Your task to perform on an android device: Add alienware area 51 to the cart on ebay.com Image 0: 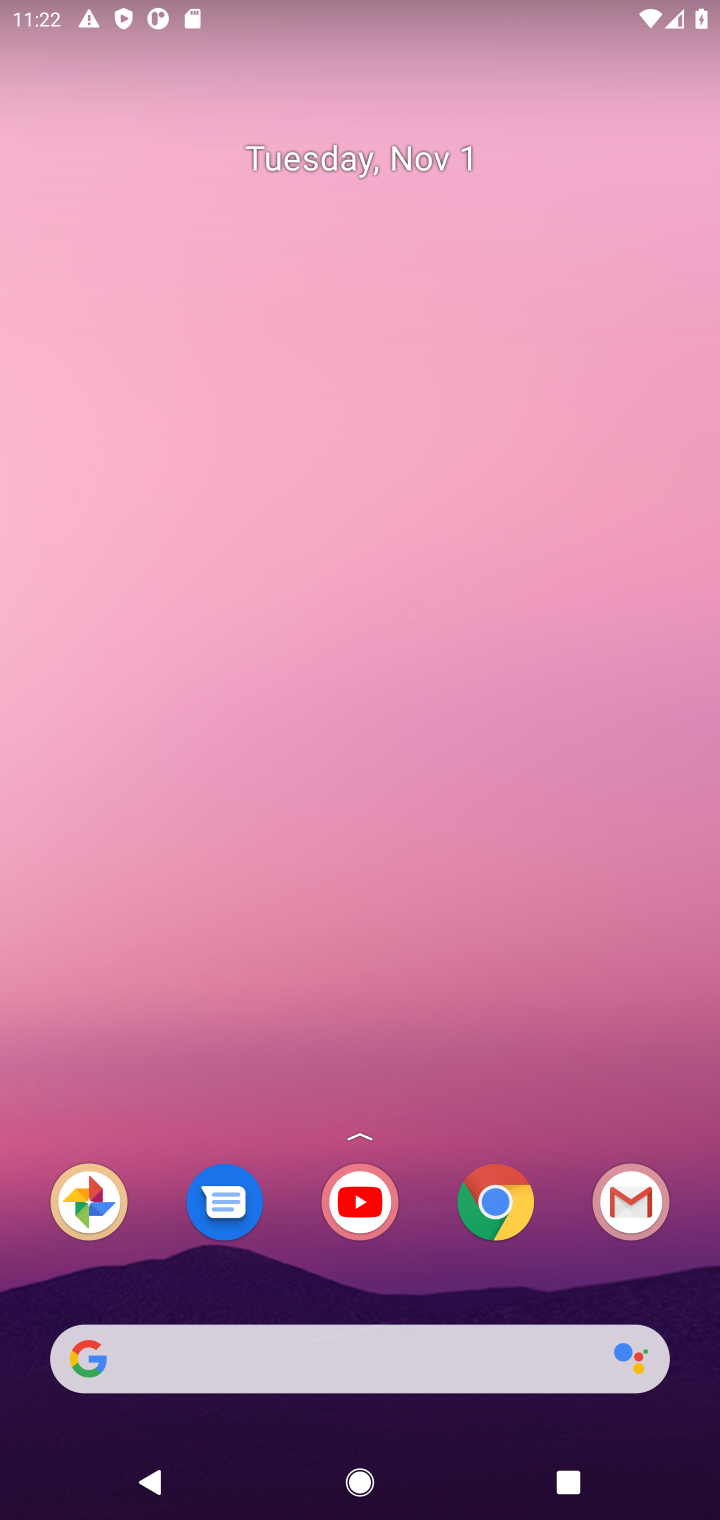
Step 0: click (523, 1212)
Your task to perform on an android device: Add alienware area 51 to the cart on ebay.com Image 1: 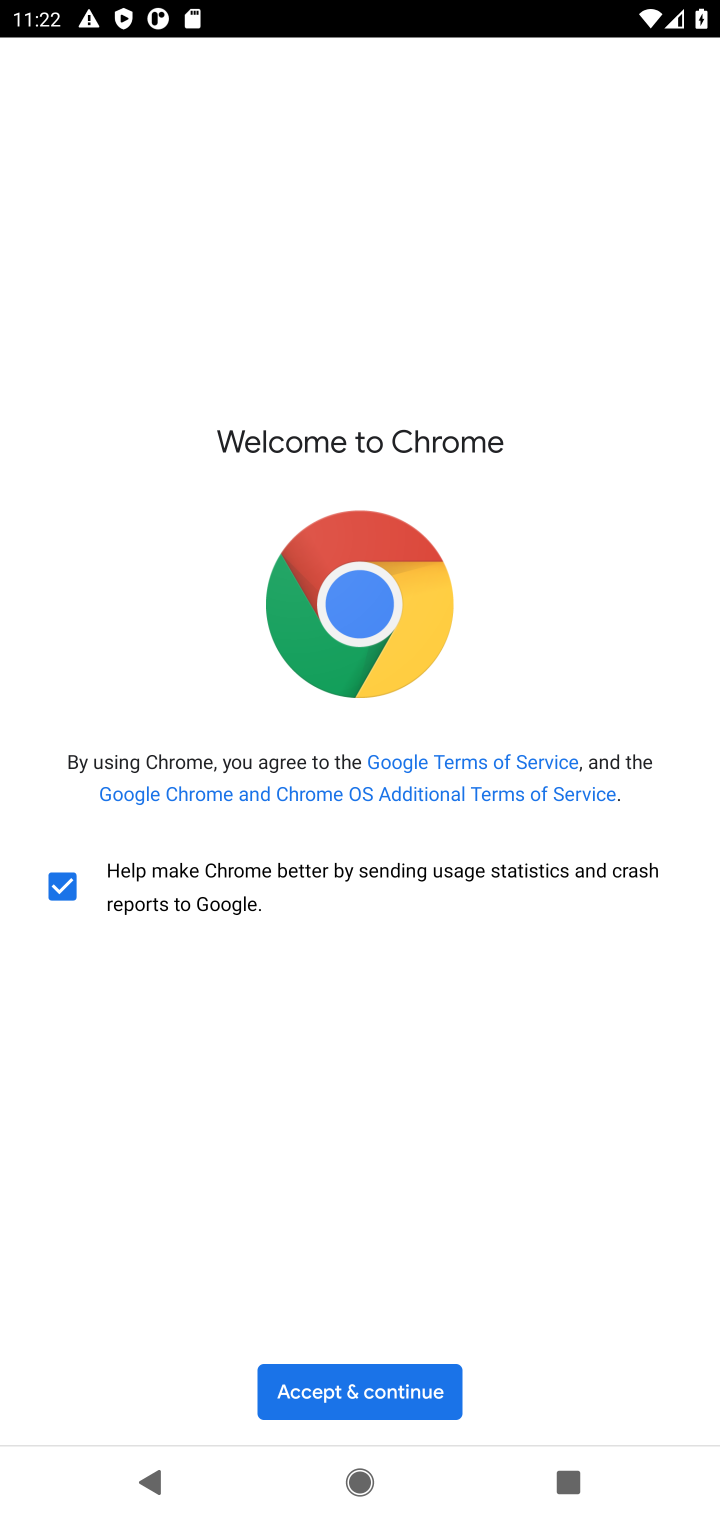
Step 1: click (326, 1453)
Your task to perform on an android device: Add alienware area 51 to the cart on ebay.com Image 2: 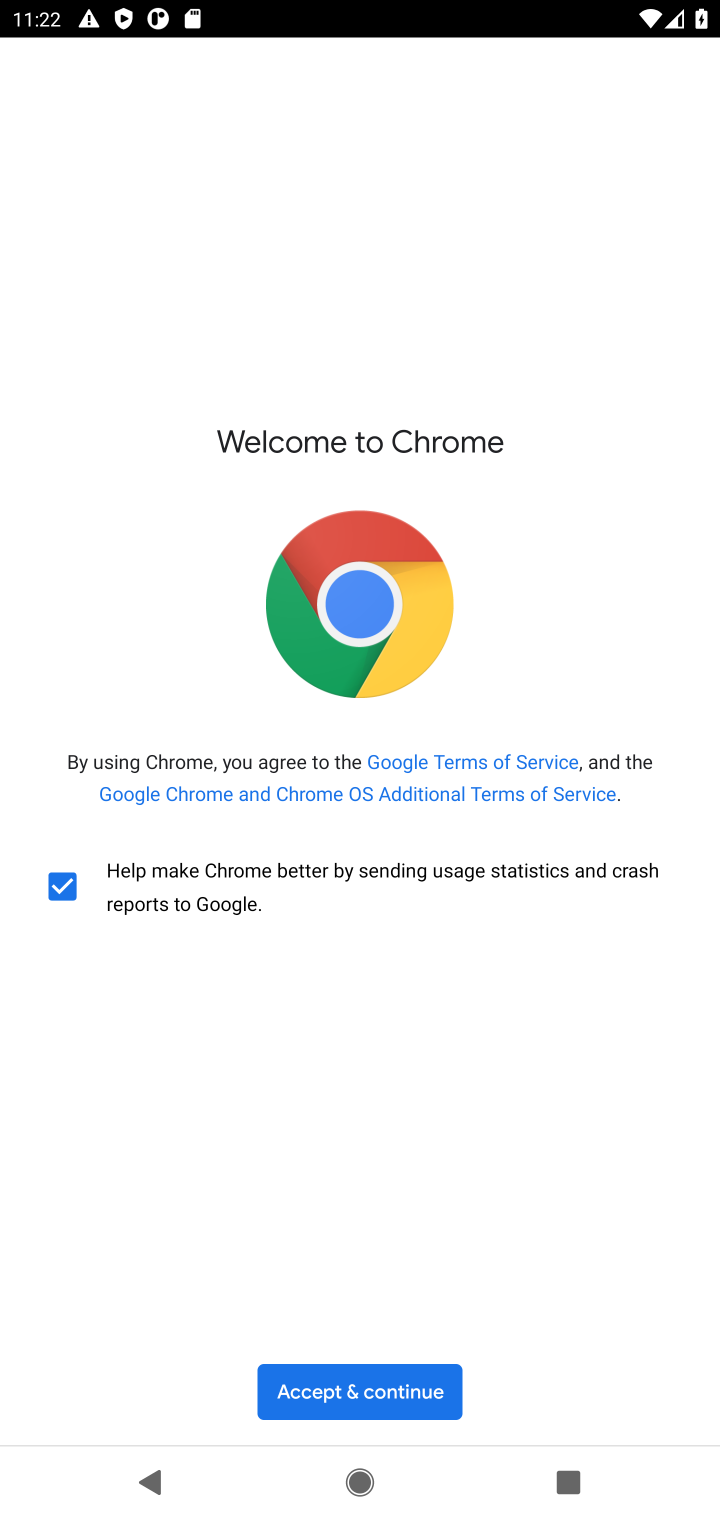
Step 2: click (324, 1401)
Your task to perform on an android device: Add alienware area 51 to the cart on ebay.com Image 3: 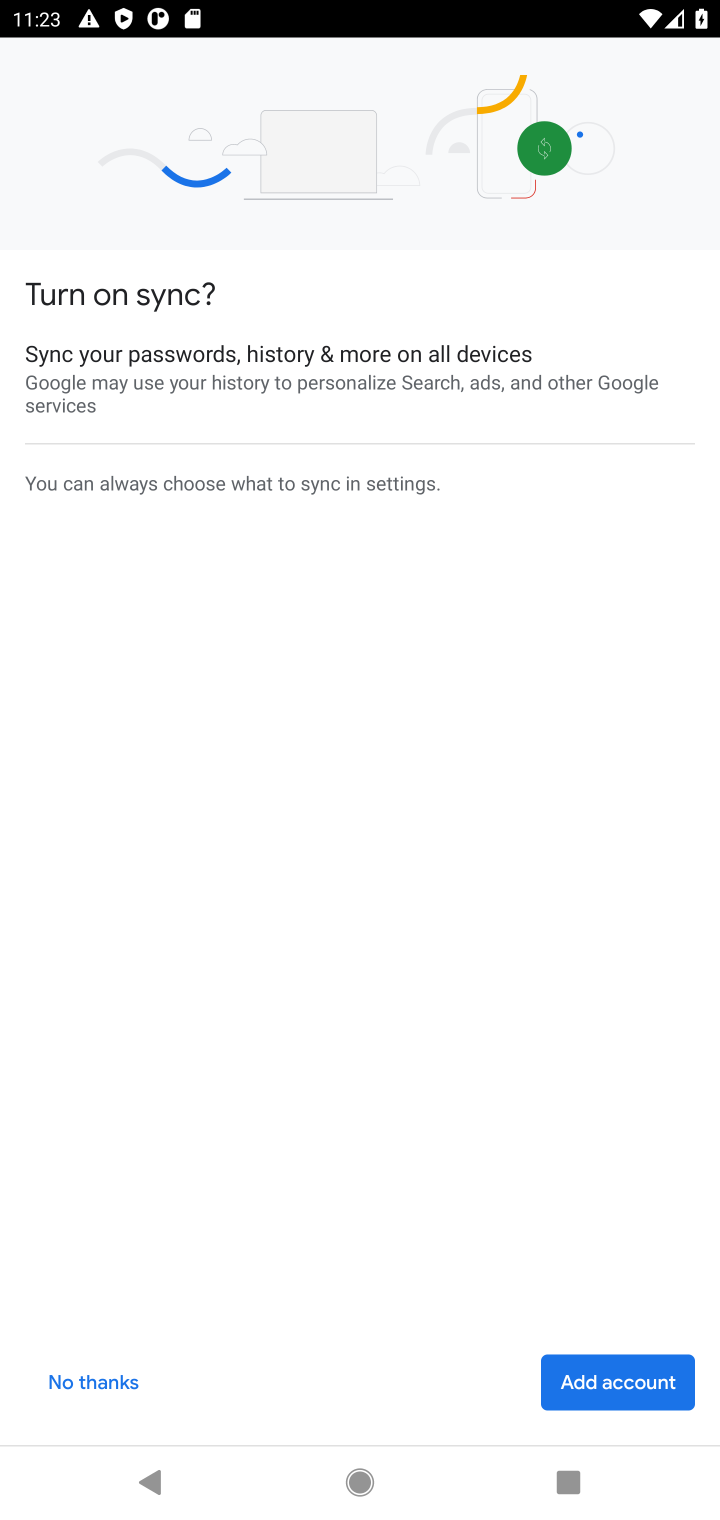
Step 3: click (90, 1397)
Your task to perform on an android device: Add alienware area 51 to the cart on ebay.com Image 4: 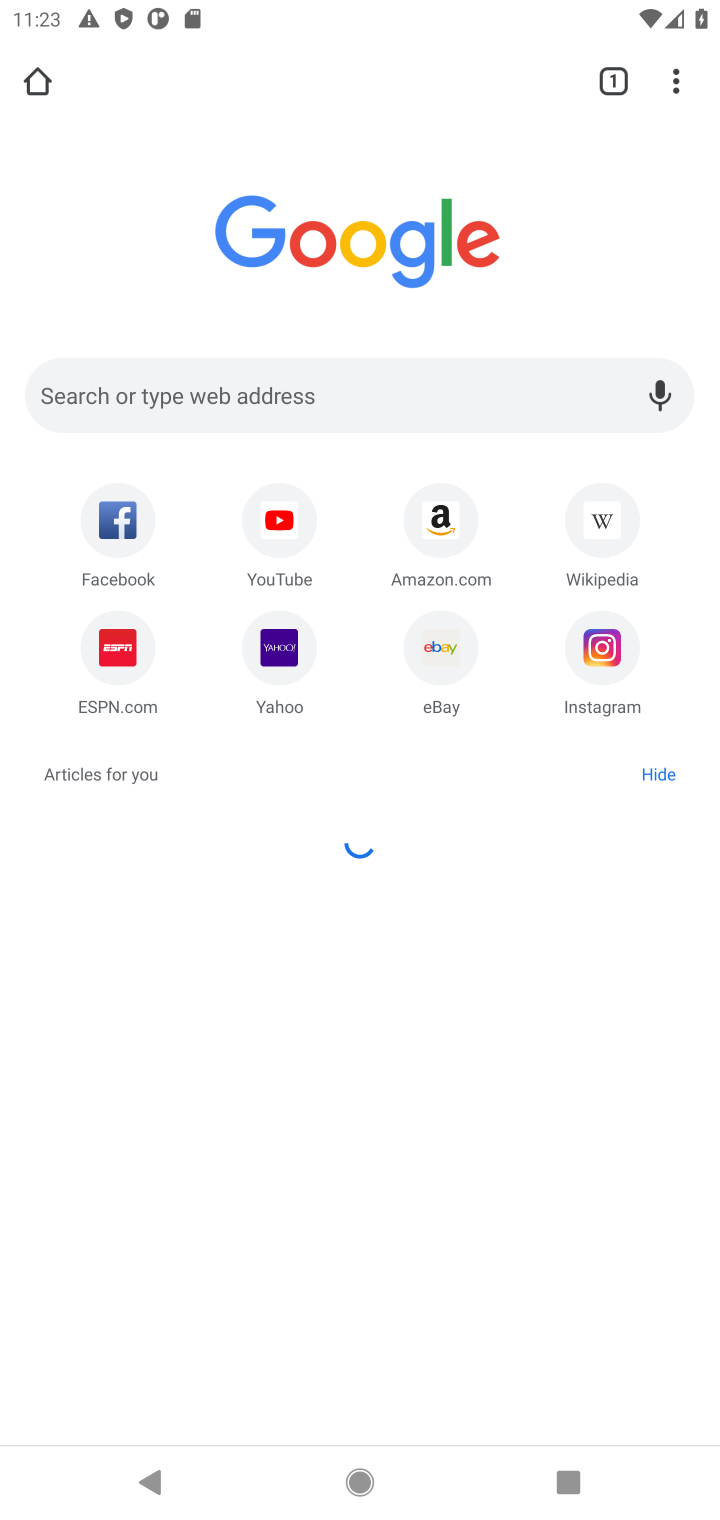
Step 4: click (311, 398)
Your task to perform on an android device: Add alienware area 51 to the cart on ebay.com Image 5: 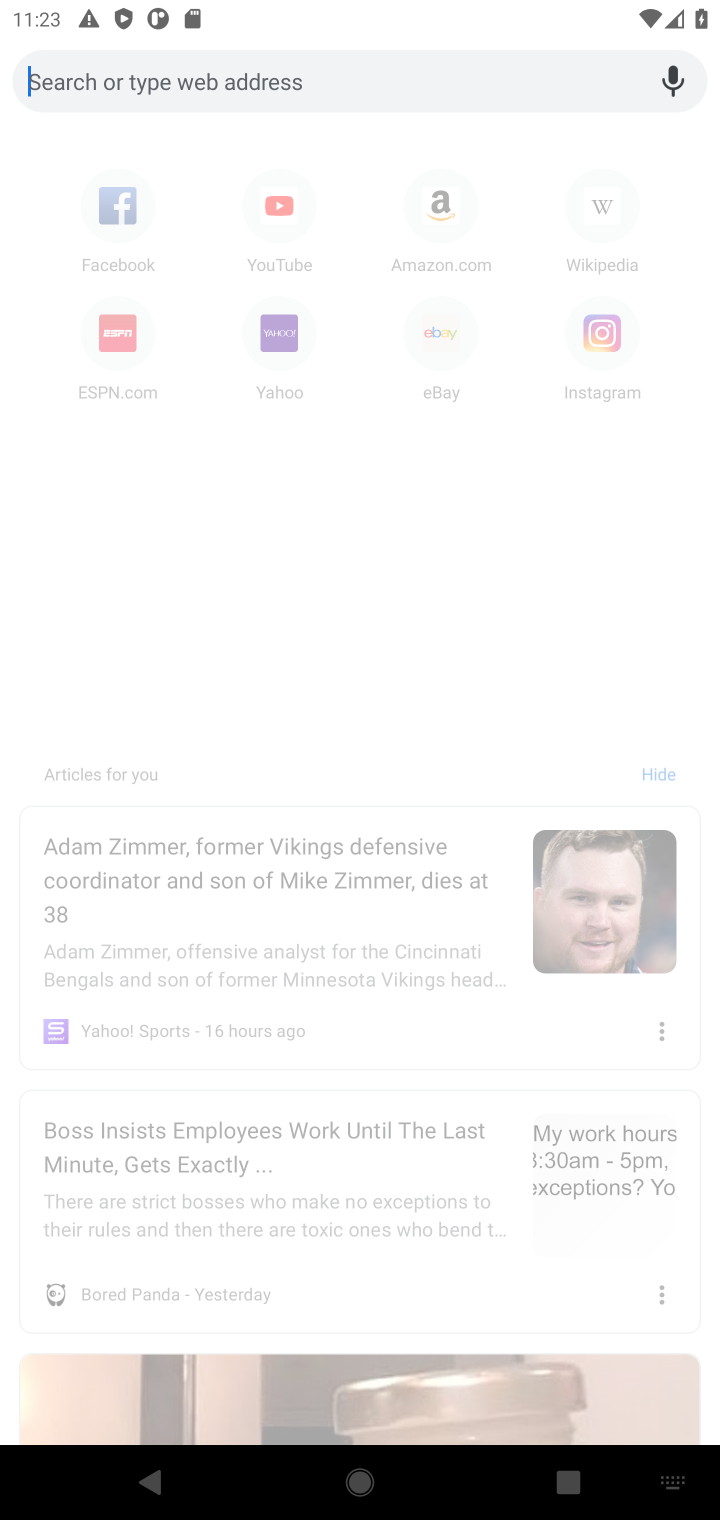
Step 5: type "ebay.com"
Your task to perform on an android device: Add alienware area 51 to the cart on ebay.com Image 6: 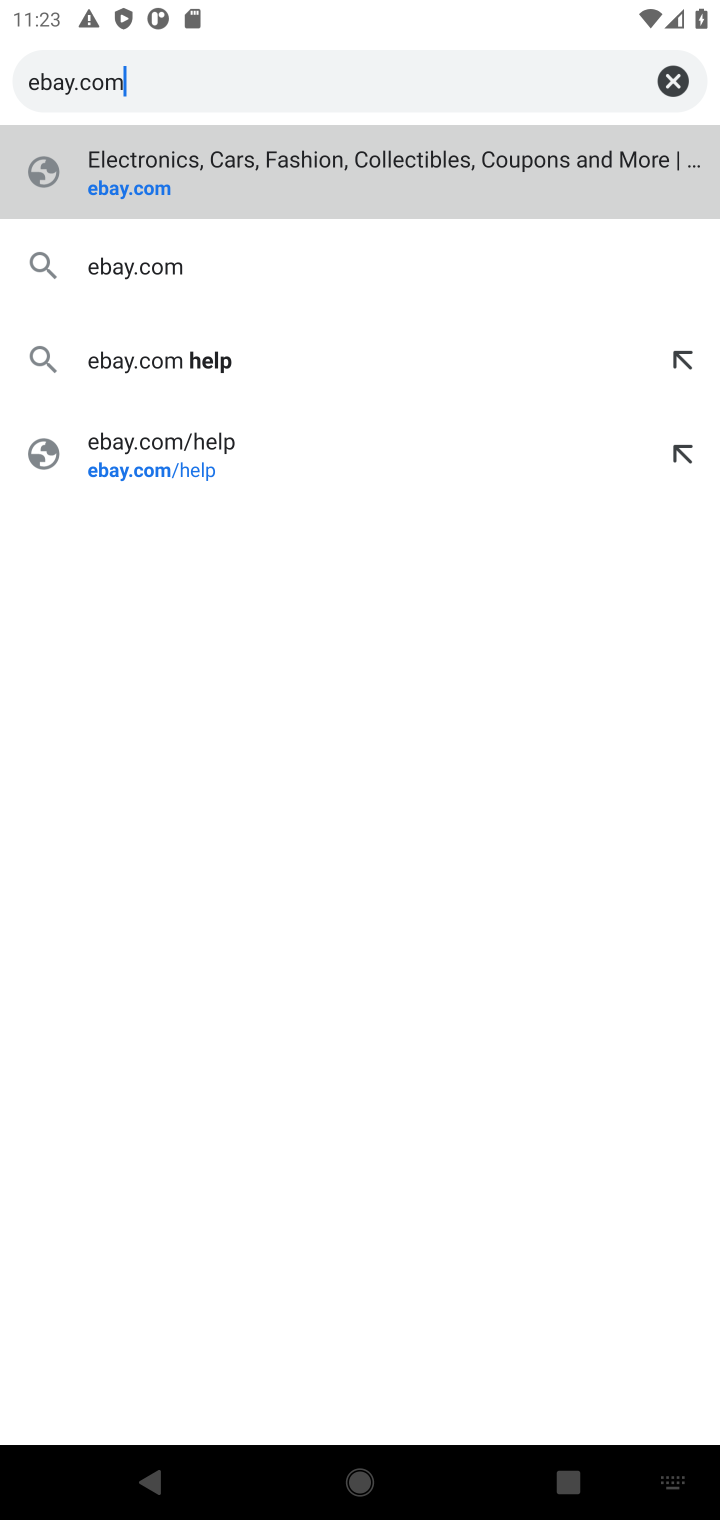
Step 6: press enter
Your task to perform on an android device: Add alienware area 51 to the cart on ebay.com Image 7: 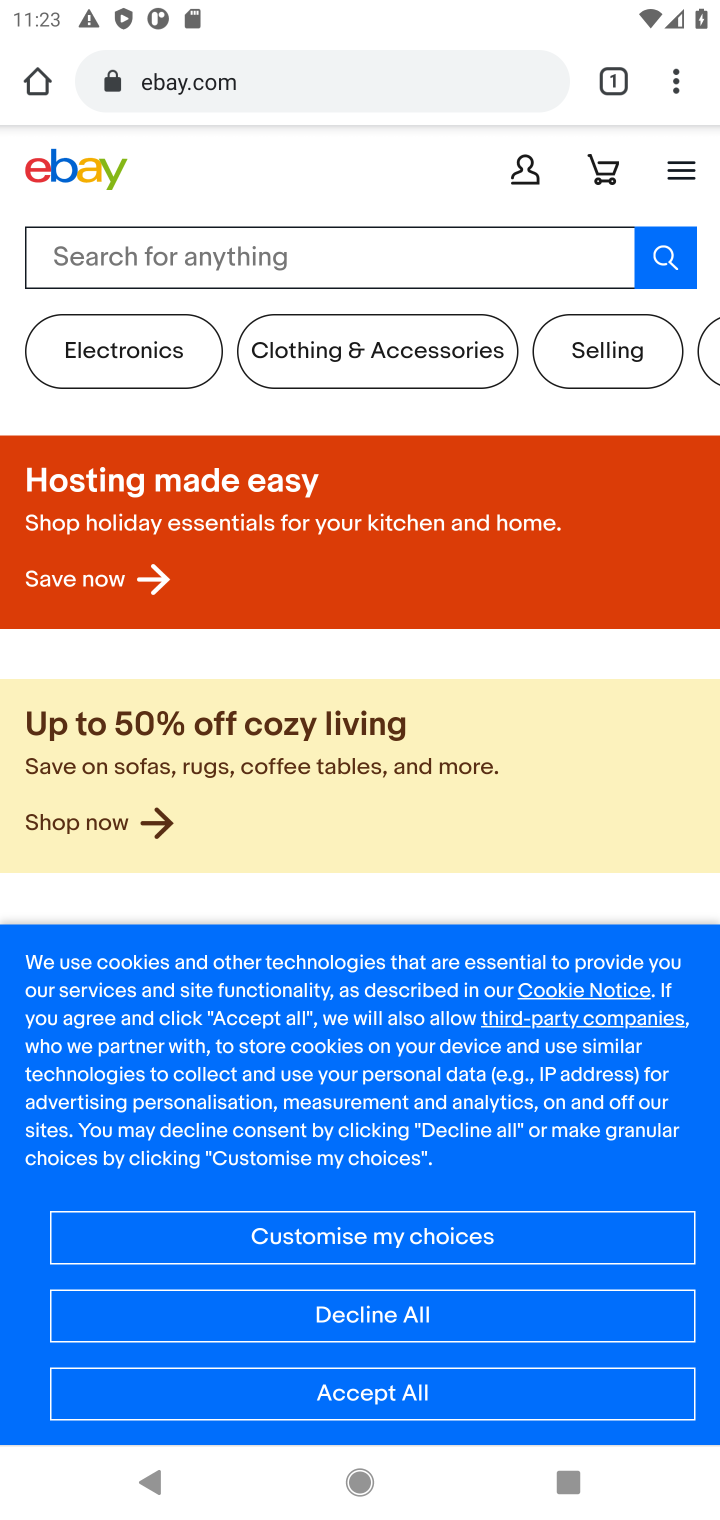
Step 7: click (374, 254)
Your task to perform on an android device: Add alienware area 51 to the cart on ebay.com Image 8: 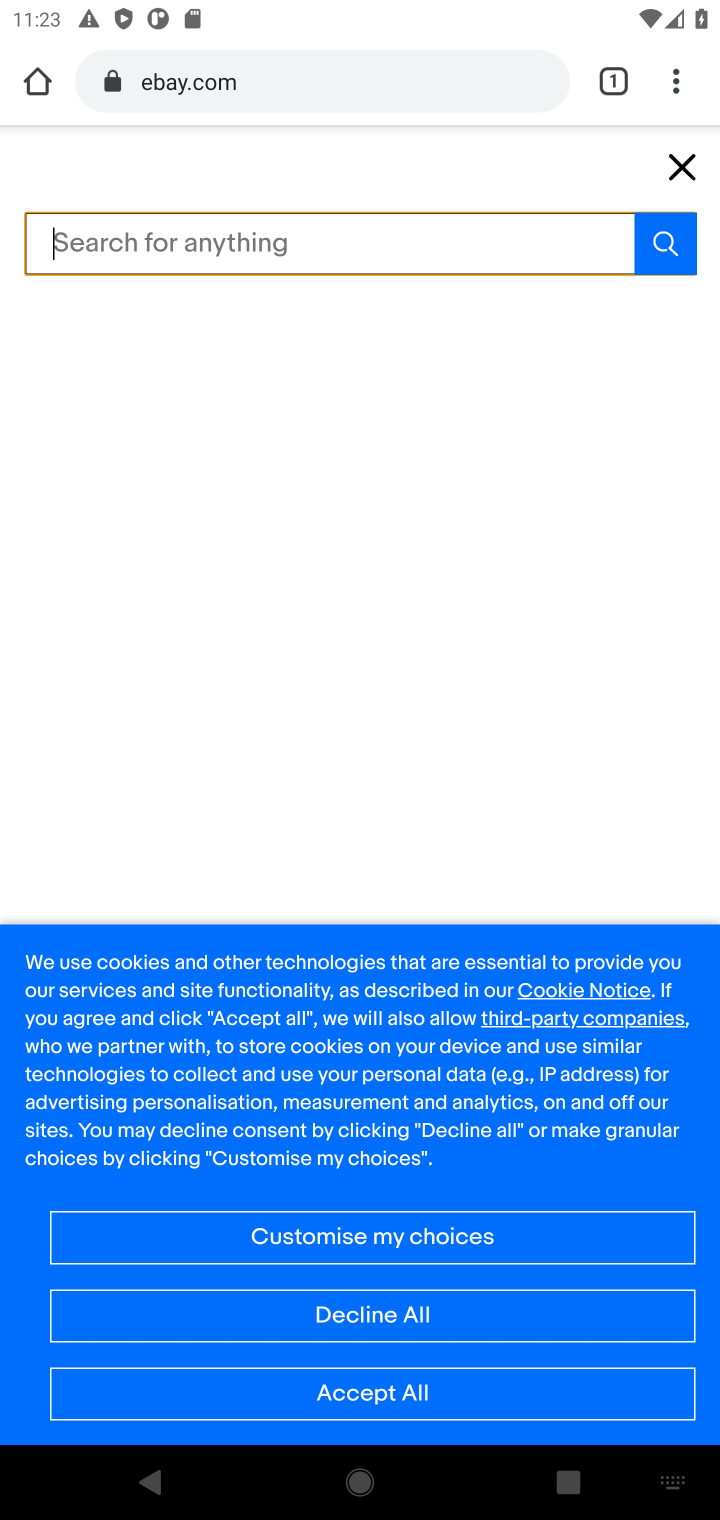
Step 8: type "alienware area 51"
Your task to perform on an android device: Add alienware area 51 to the cart on ebay.com Image 9: 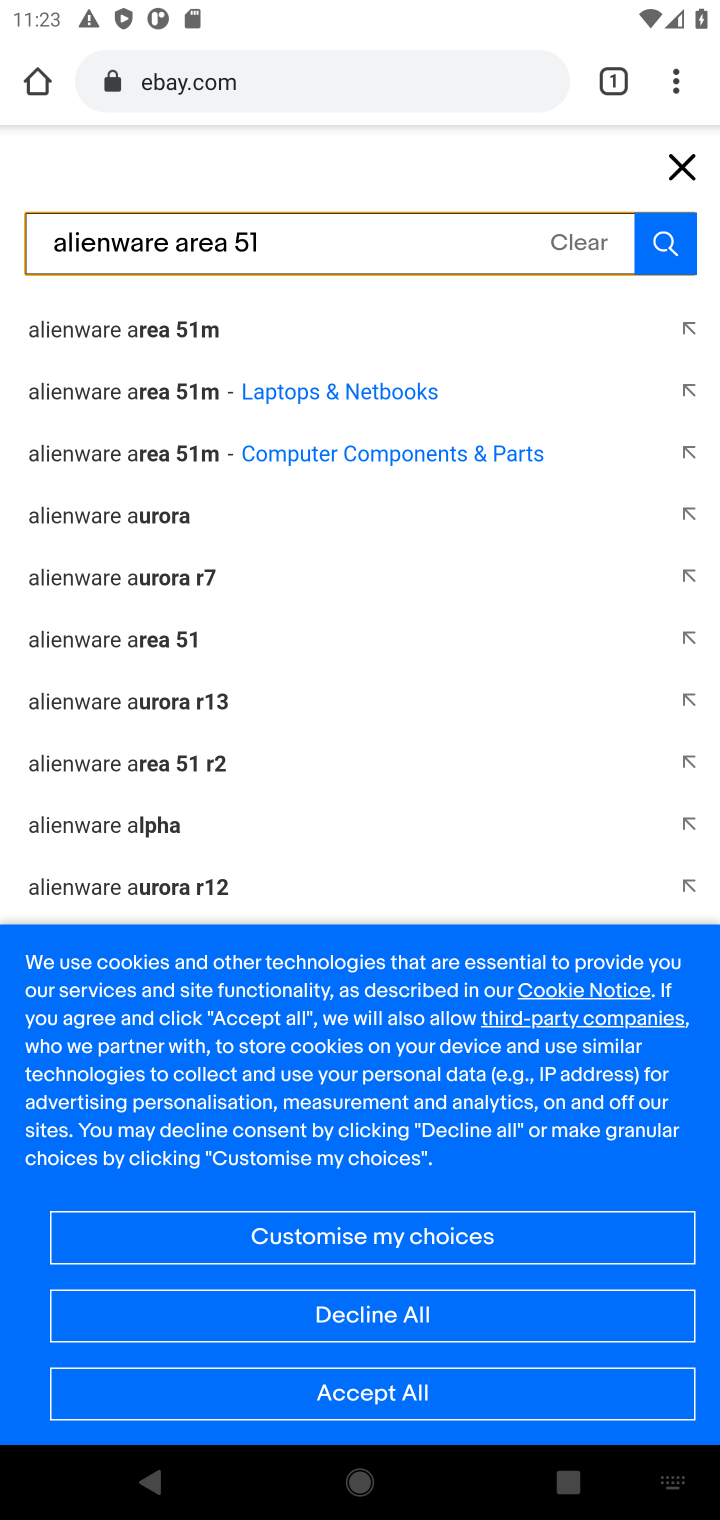
Step 9: click (663, 240)
Your task to perform on an android device: Add alienware area 51 to the cart on ebay.com Image 10: 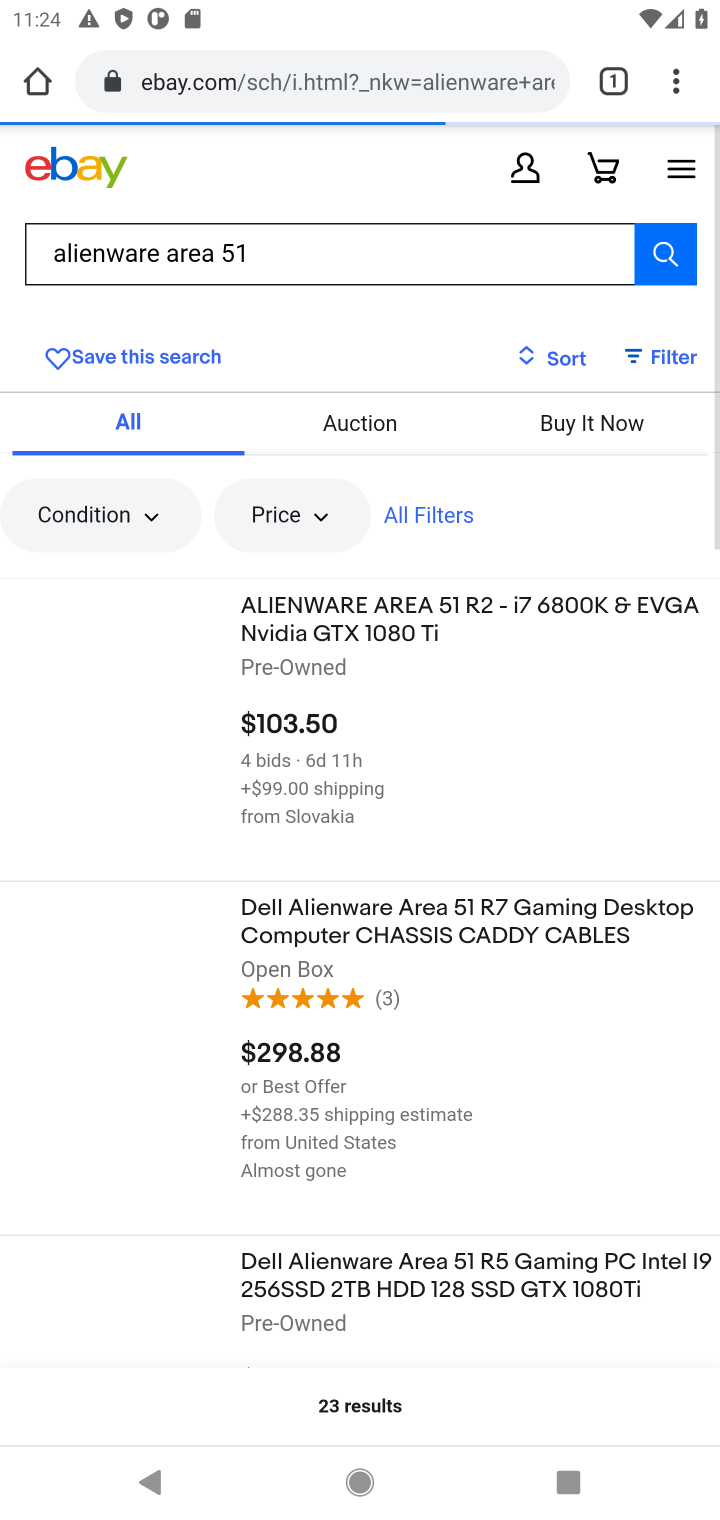
Step 10: drag from (407, 1408) to (424, 1148)
Your task to perform on an android device: Add alienware area 51 to the cart on ebay.com Image 11: 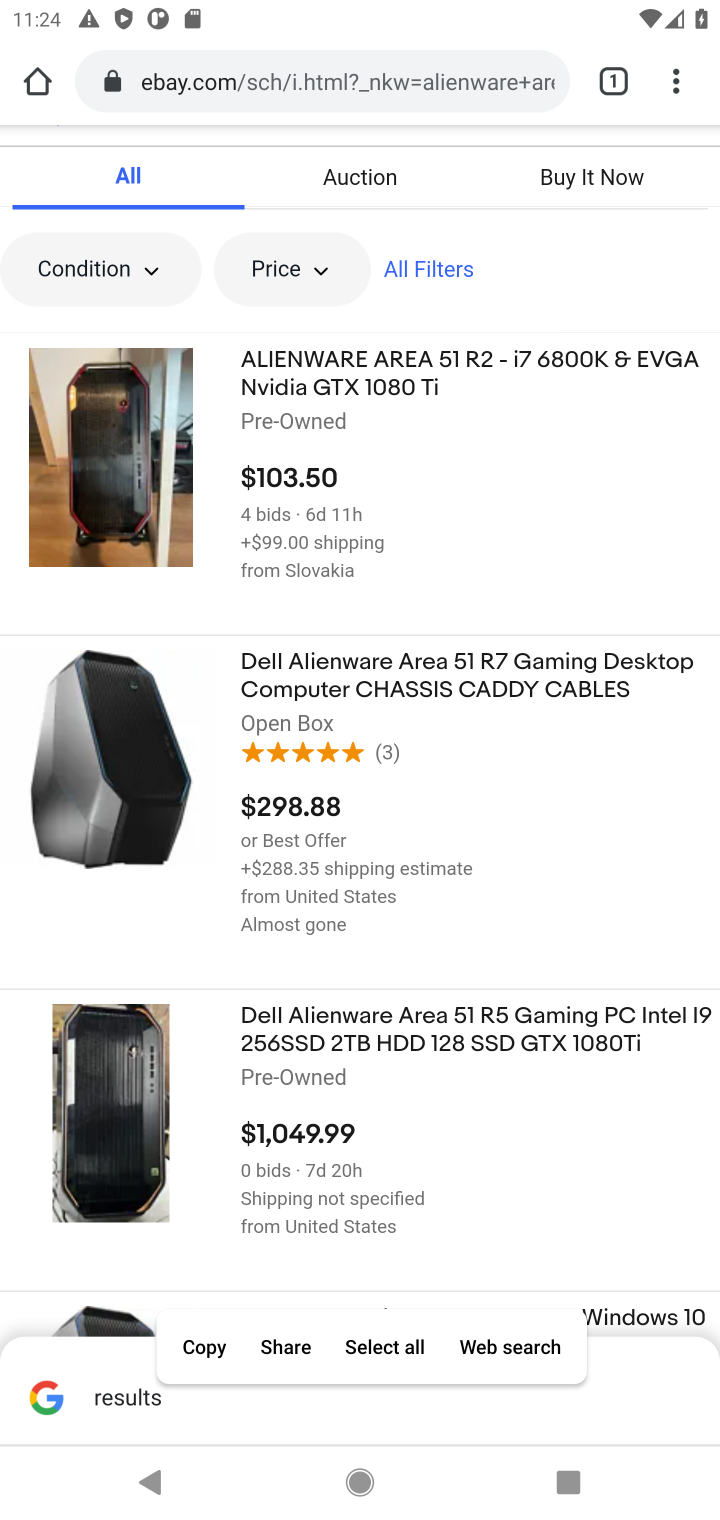
Step 11: click (329, 378)
Your task to perform on an android device: Add alienware area 51 to the cart on ebay.com Image 12: 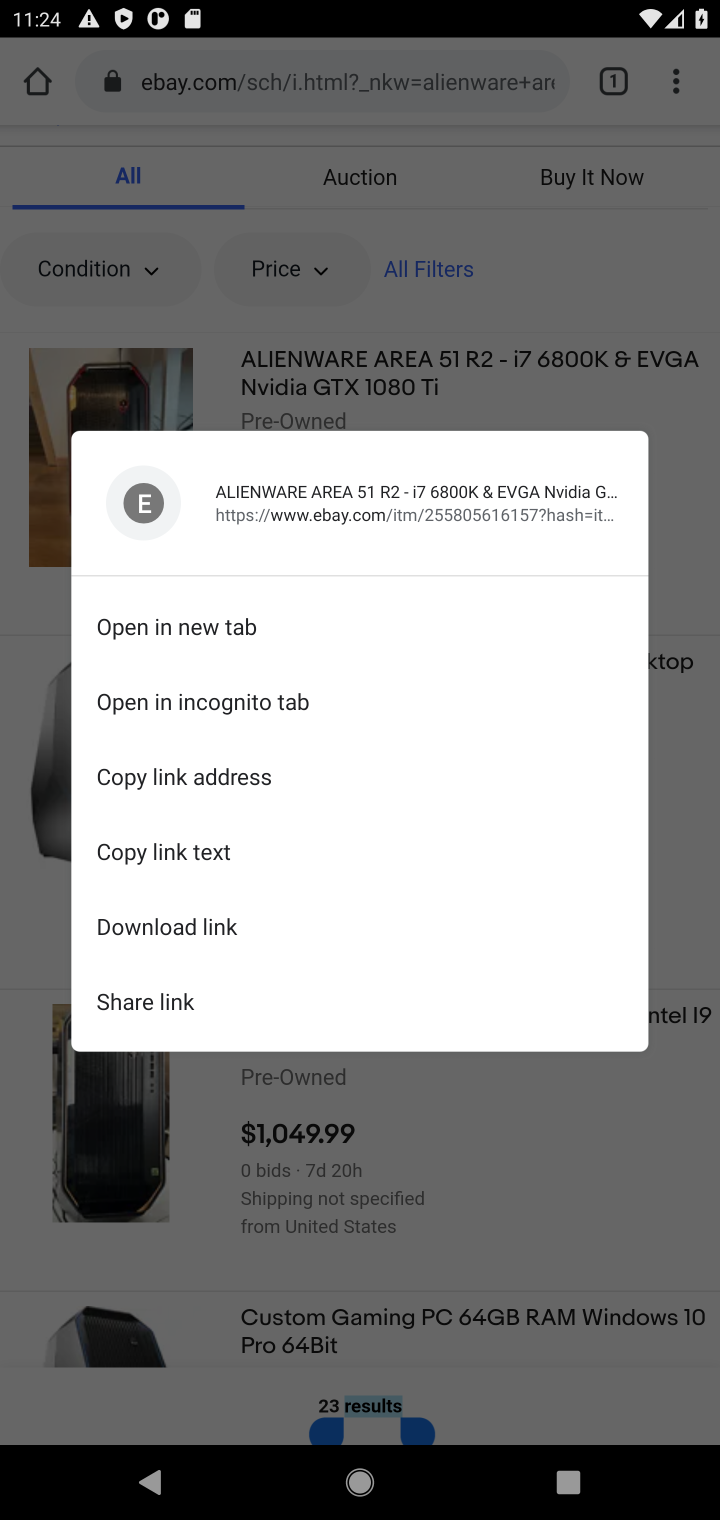
Step 12: click (662, 525)
Your task to perform on an android device: Add alienware area 51 to the cart on ebay.com Image 13: 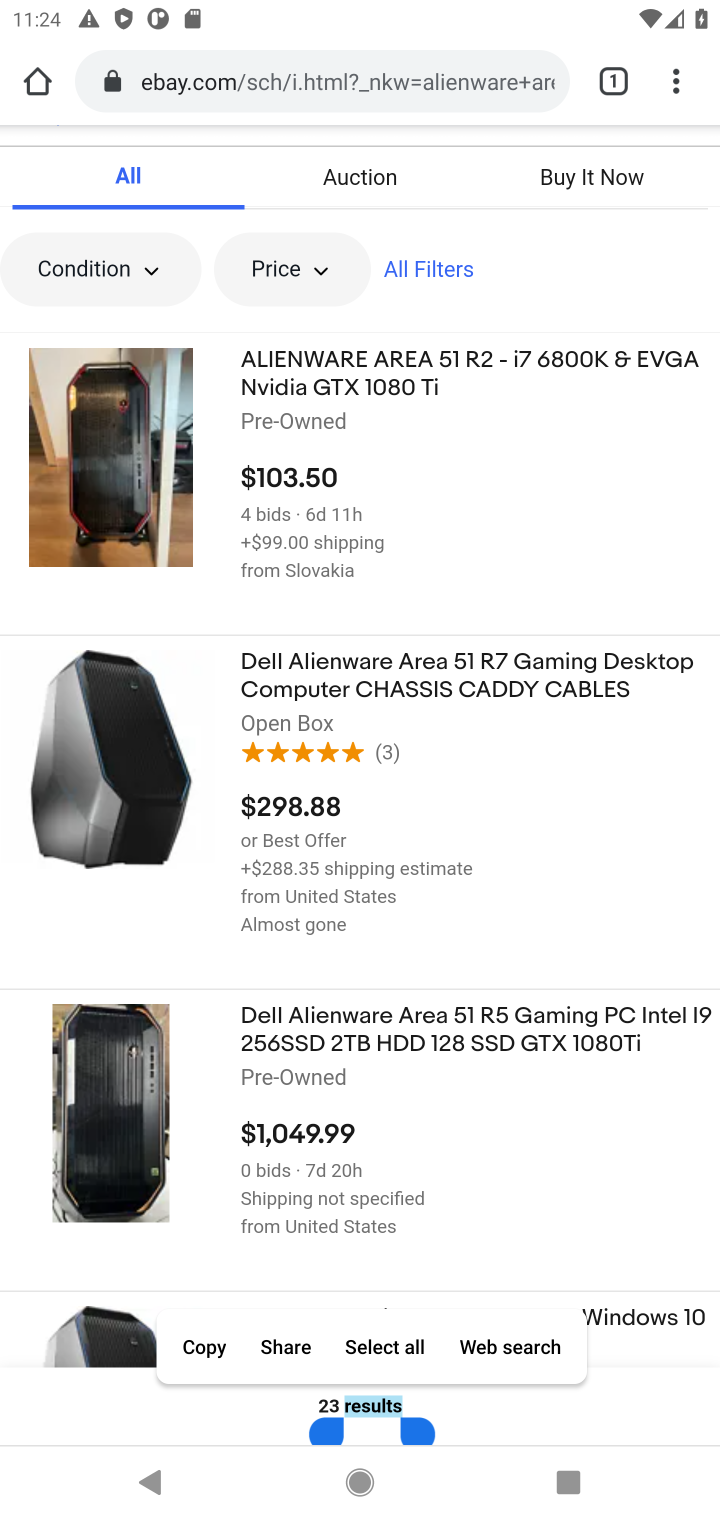
Step 13: click (435, 409)
Your task to perform on an android device: Add alienware area 51 to the cart on ebay.com Image 14: 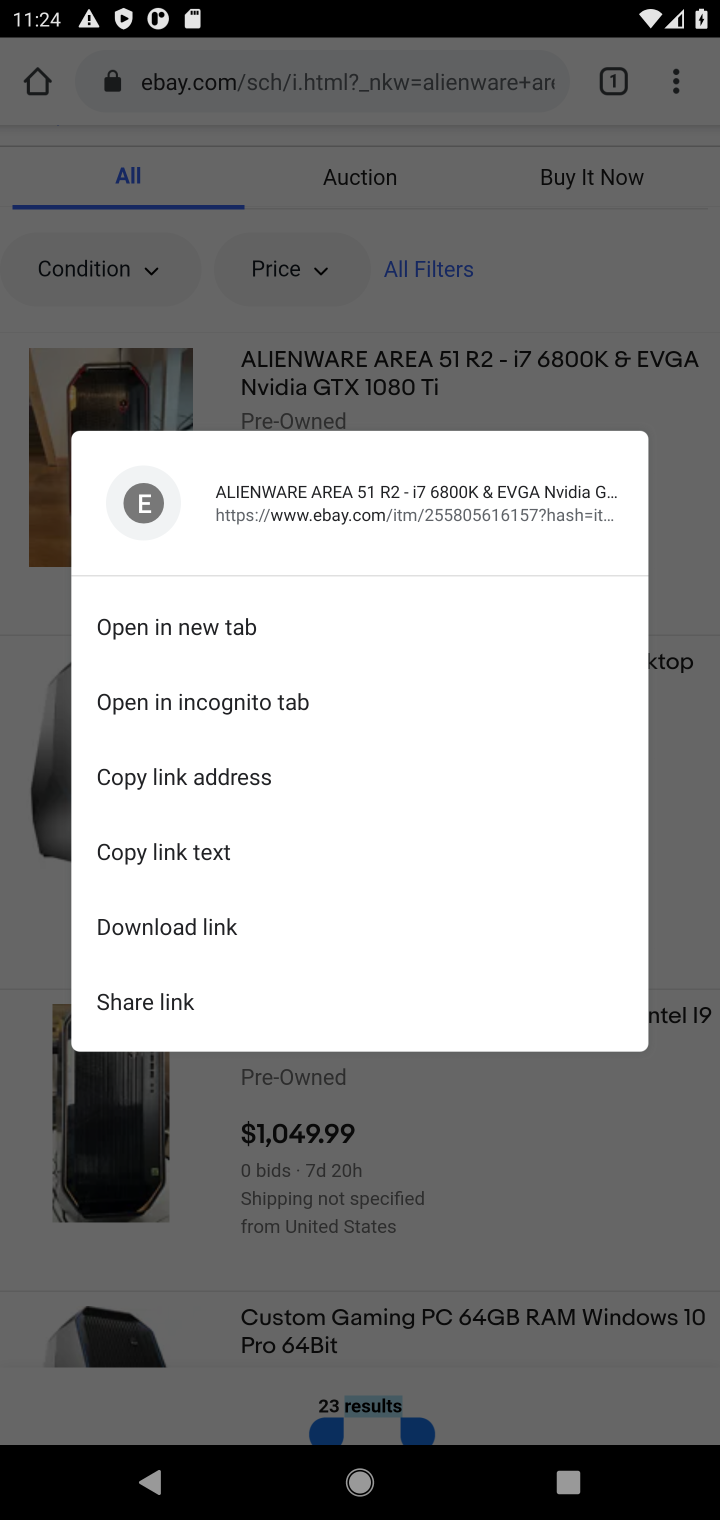
Step 14: click (186, 347)
Your task to perform on an android device: Add alienware area 51 to the cart on ebay.com Image 15: 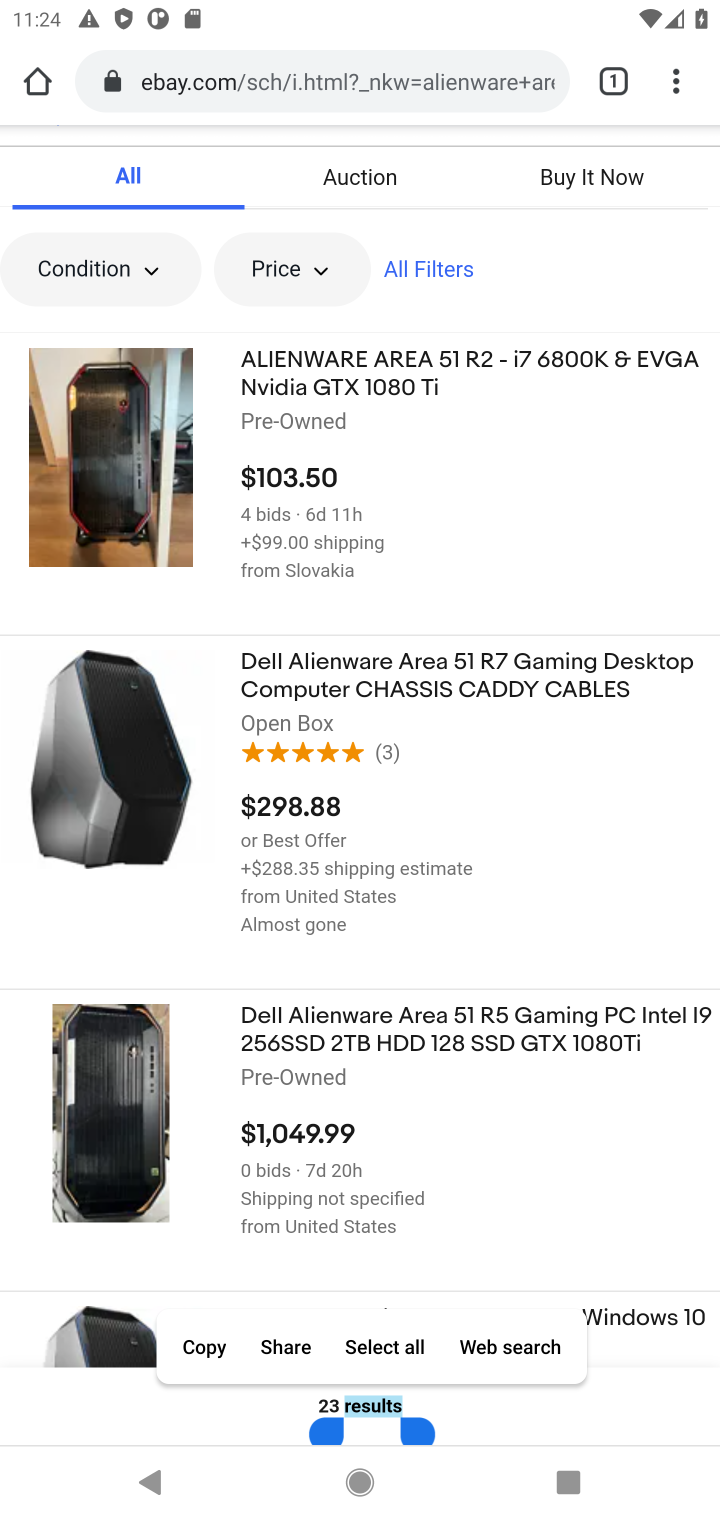
Step 15: click (309, 368)
Your task to perform on an android device: Add alienware area 51 to the cart on ebay.com Image 16: 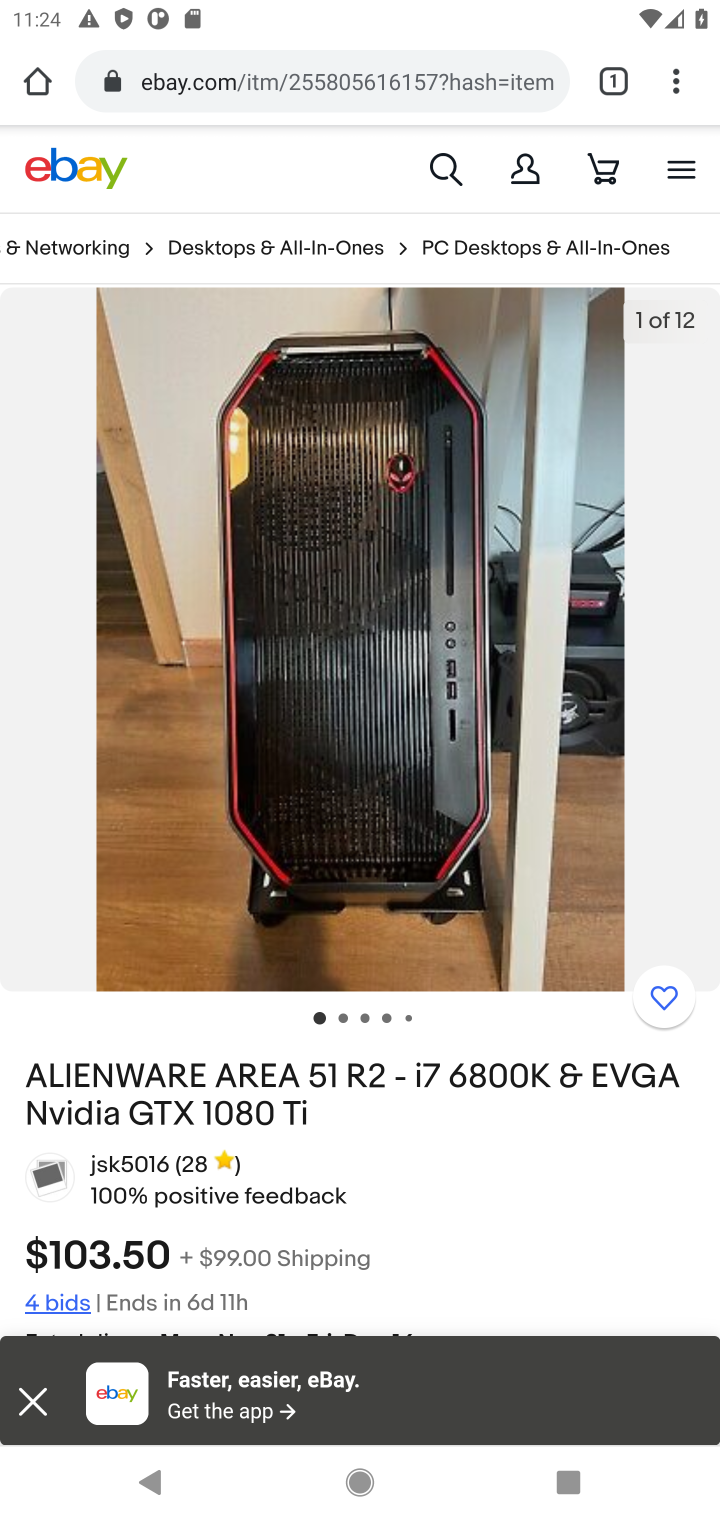
Step 16: drag from (485, 1218) to (429, 668)
Your task to perform on an android device: Add alienware area 51 to the cart on ebay.com Image 17: 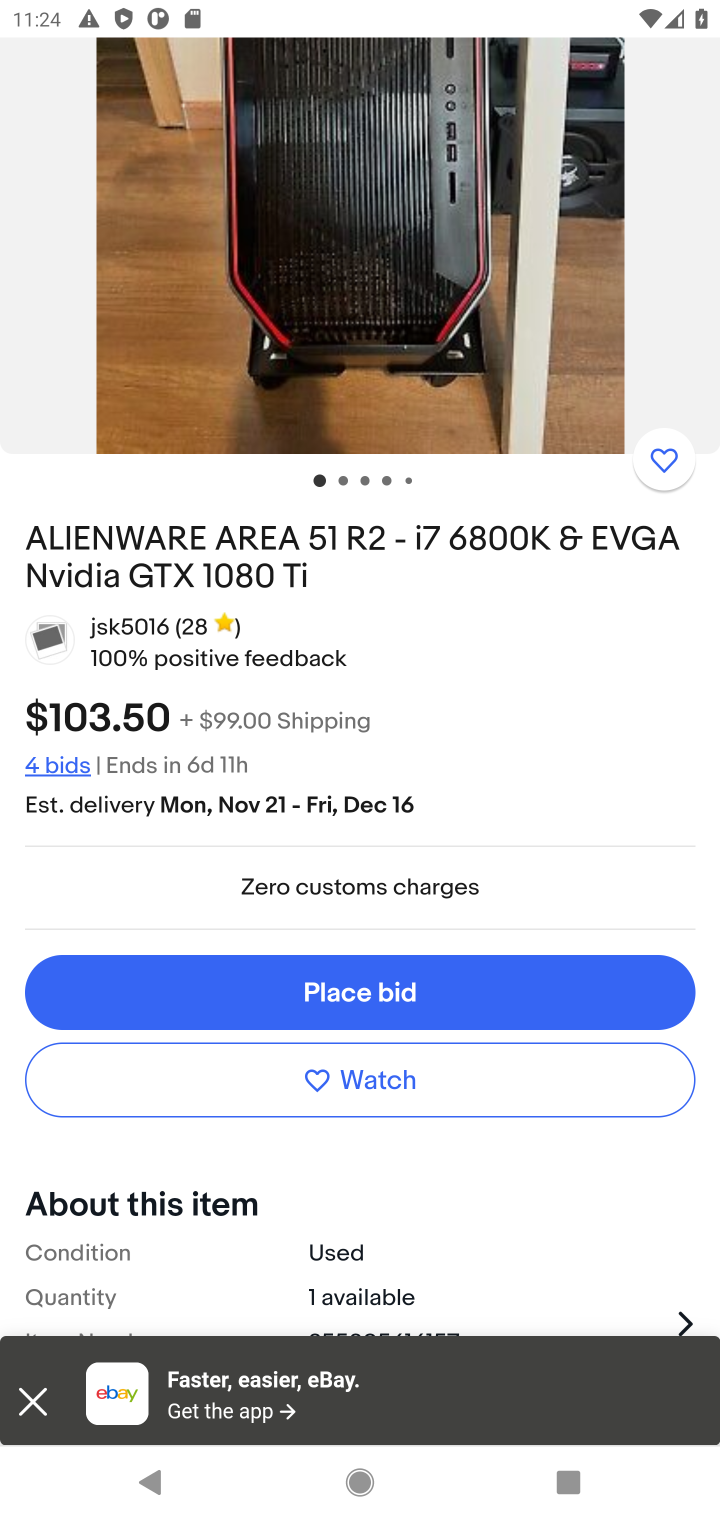
Step 17: press back button
Your task to perform on an android device: Add alienware area 51 to the cart on ebay.com Image 18: 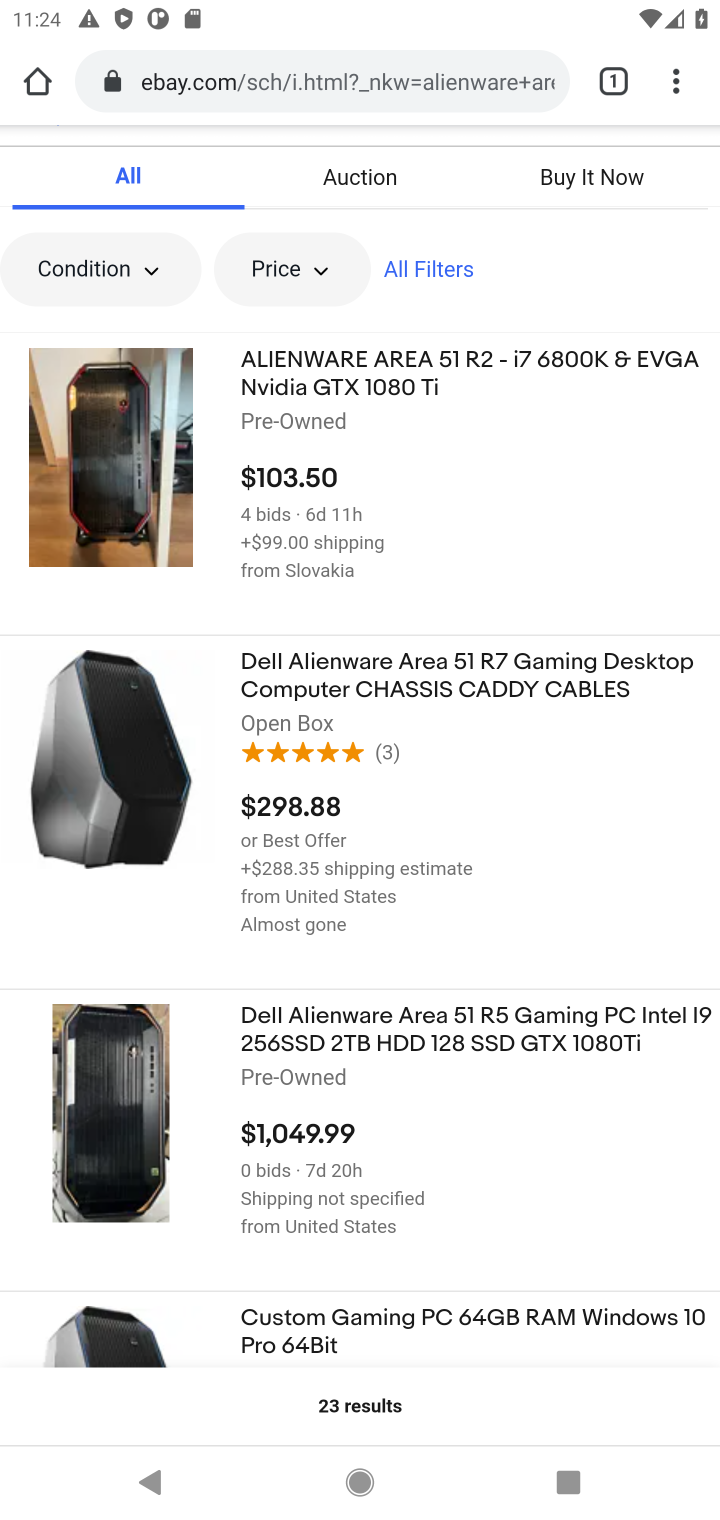
Step 18: click (549, 728)
Your task to perform on an android device: Add alienware area 51 to the cart on ebay.com Image 19: 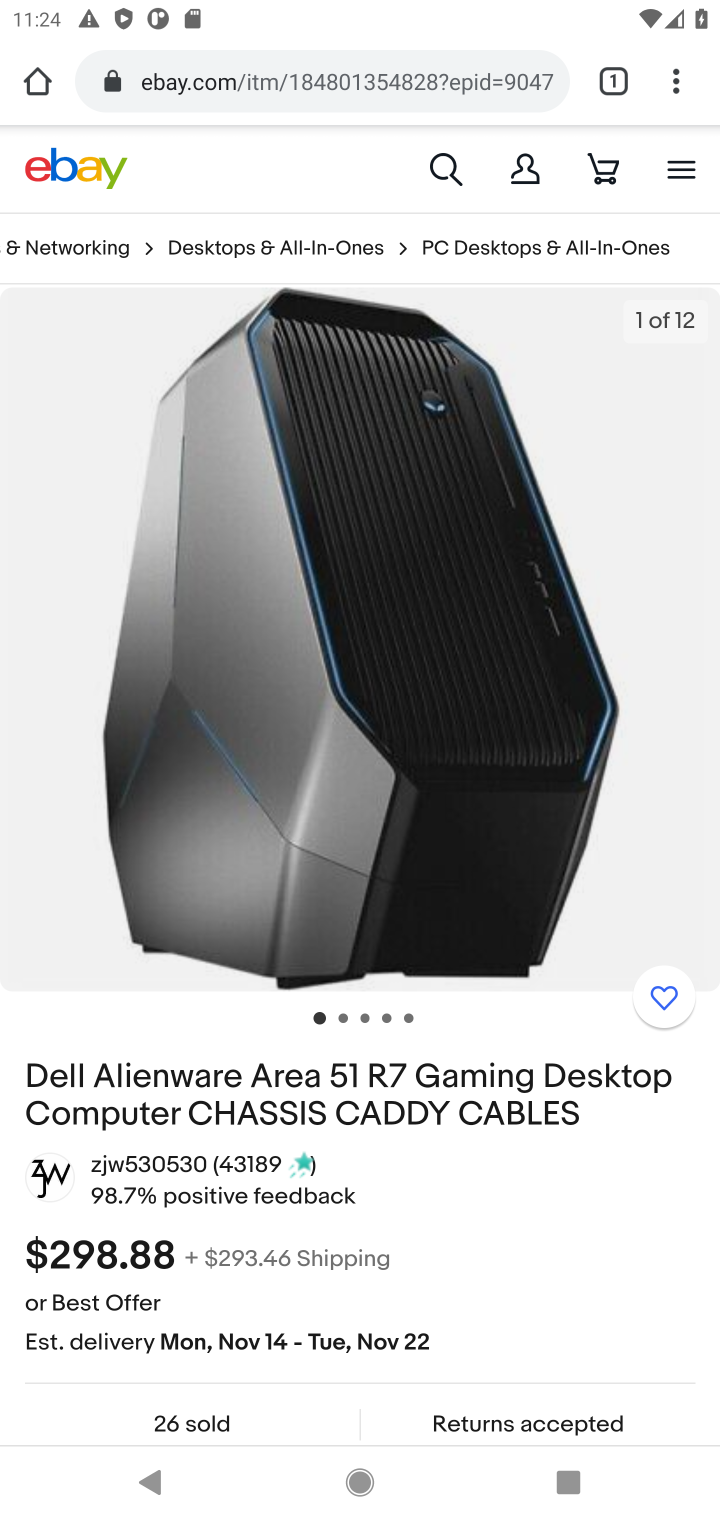
Step 19: drag from (572, 1126) to (577, 589)
Your task to perform on an android device: Add alienware area 51 to the cart on ebay.com Image 20: 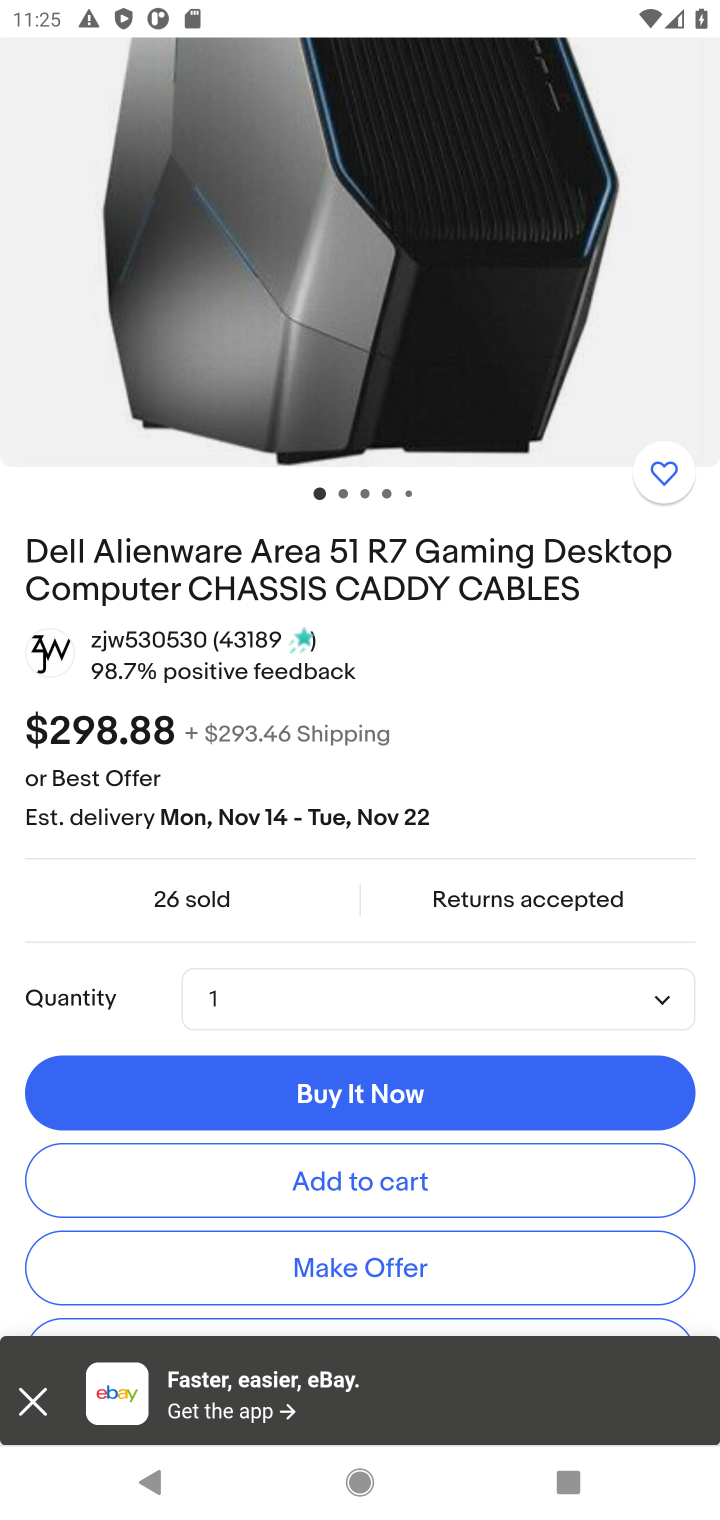
Step 20: click (474, 1189)
Your task to perform on an android device: Add alienware area 51 to the cart on ebay.com Image 21: 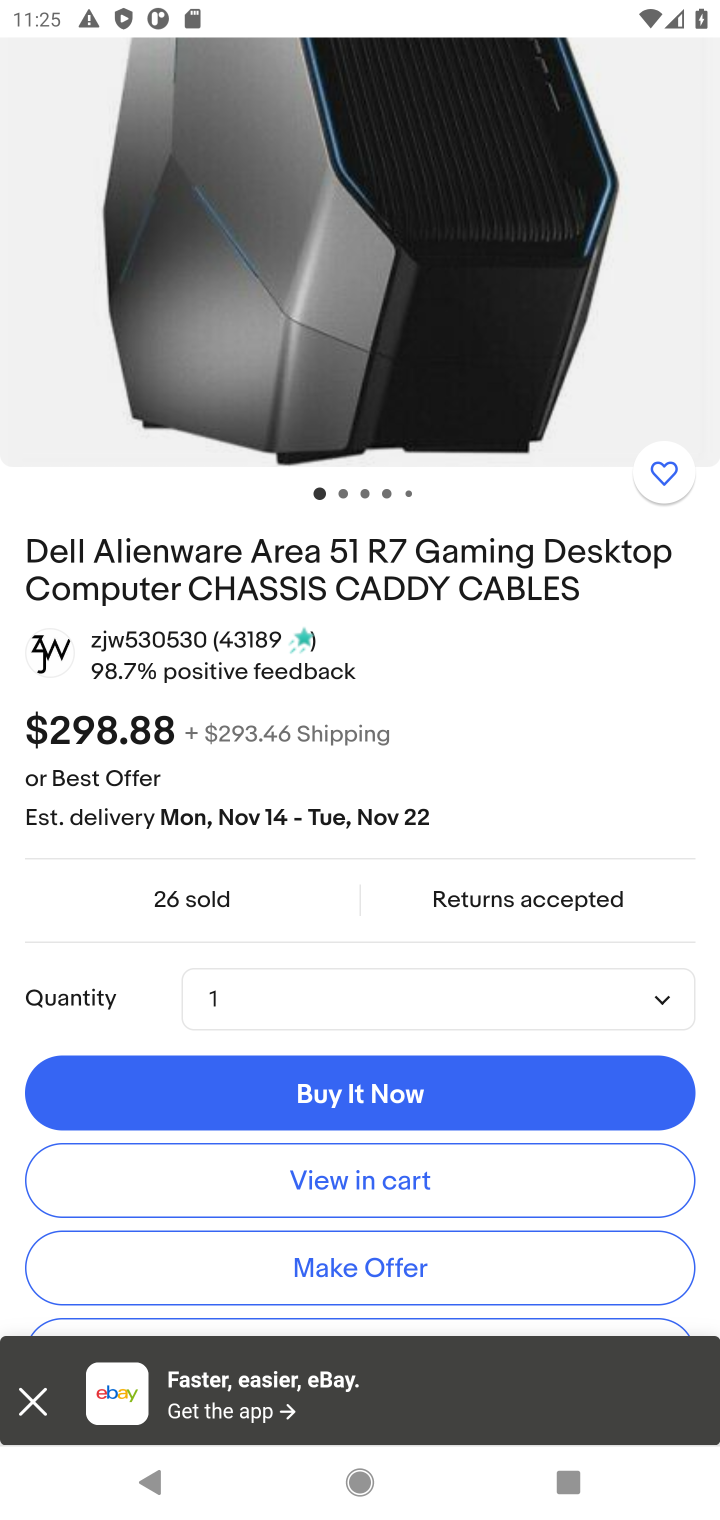
Step 21: click (500, 1181)
Your task to perform on an android device: Add alienware area 51 to the cart on ebay.com Image 22: 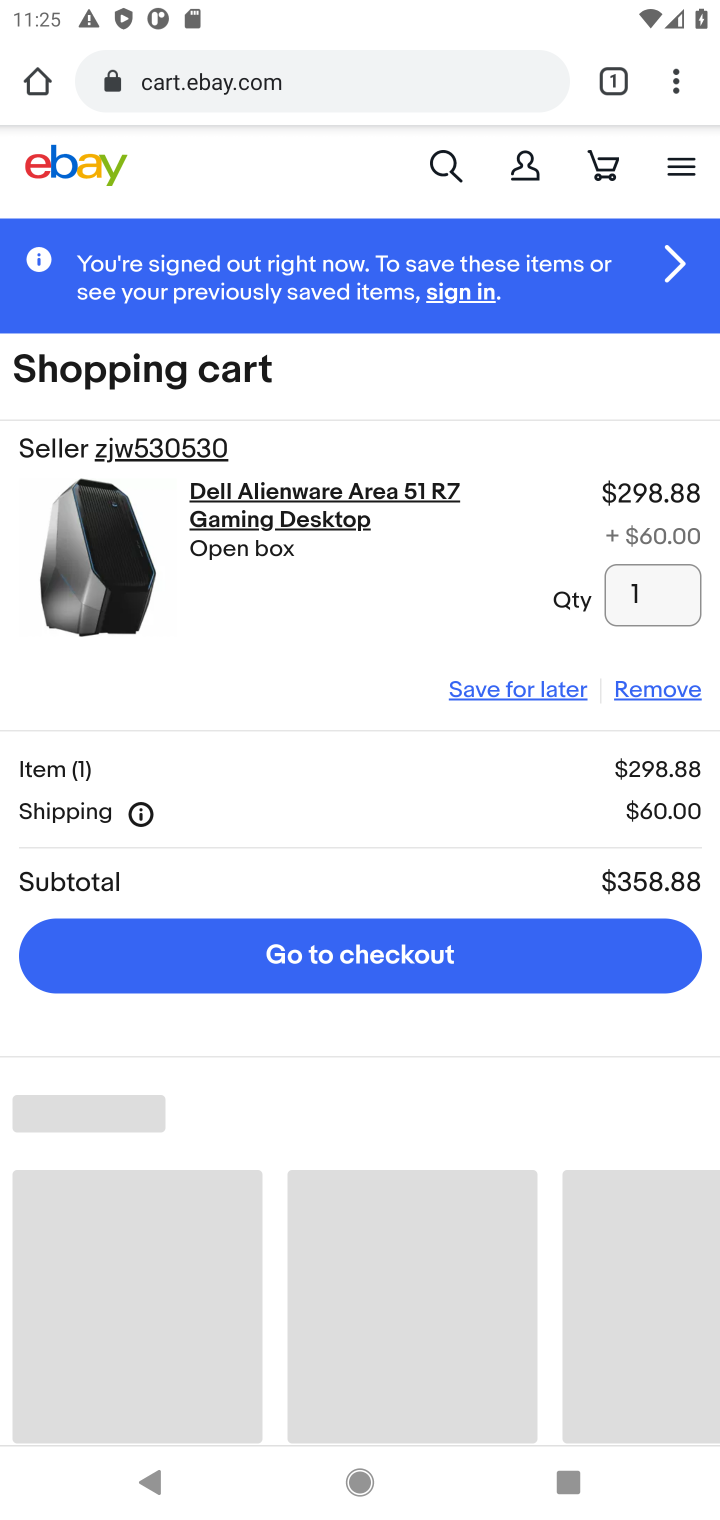
Step 22: task complete